Your task to perform on an android device: change the clock style Image 0: 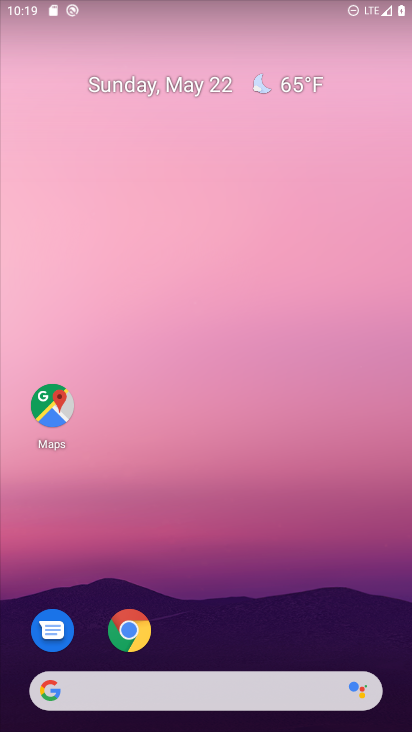
Step 0: press home button
Your task to perform on an android device: change the clock style Image 1: 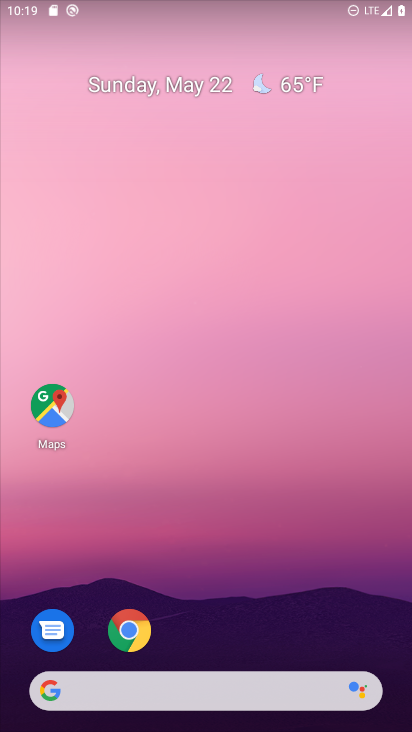
Step 1: drag from (171, 671) to (294, 151)
Your task to perform on an android device: change the clock style Image 2: 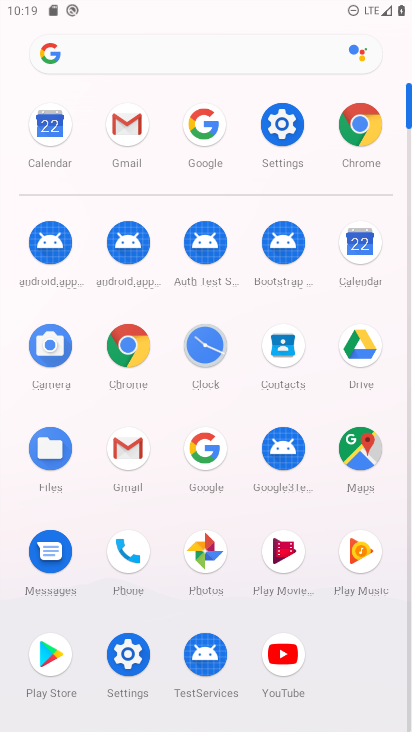
Step 2: click (204, 356)
Your task to perform on an android device: change the clock style Image 3: 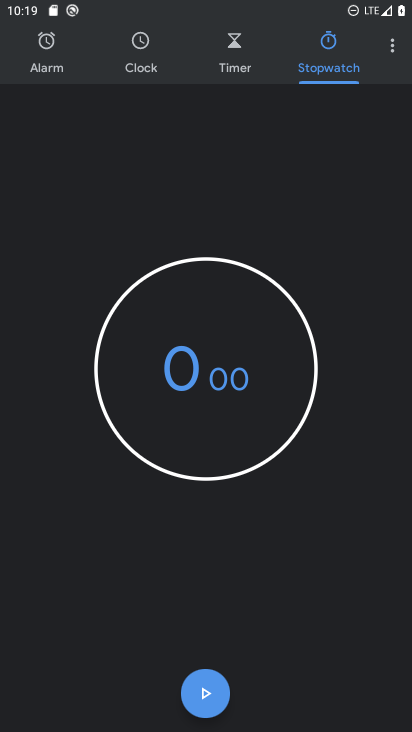
Step 3: click (393, 47)
Your task to perform on an android device: change the clock style Image 4: 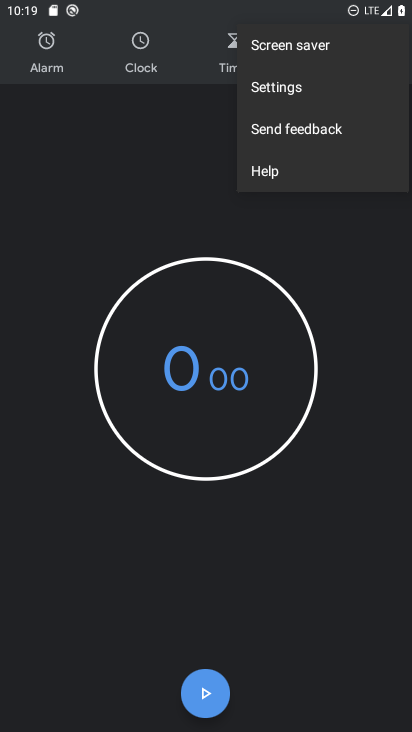
Step 4: click (280, 93)
Your task to perform on an android device: change the clock style Image 5: 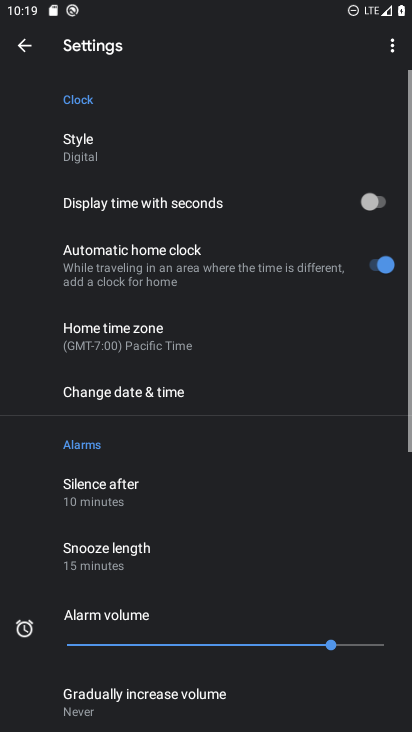
Step 5: click (82, 148)
Your task to perform on an android device: change the clock style Image 6: 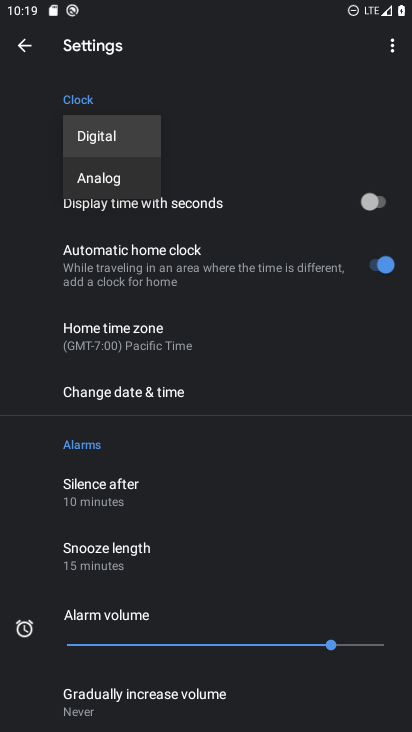
Step 6: click (126, 177)
Your task to perform on an android device: change the clock style Image 7: 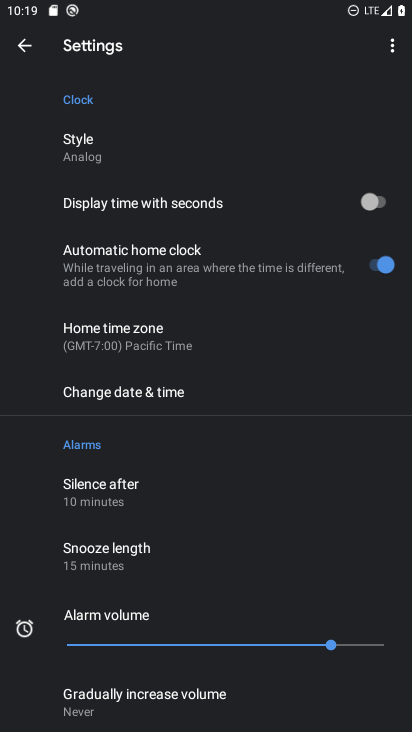
Step 7: task complete